Your task to perform on an android device: Is it going to rain tomorrow? Image 0: 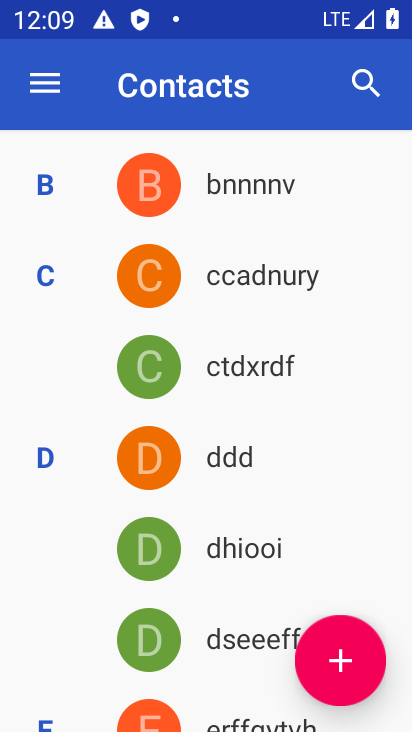
Step 0: press home button
Your task to perform on an android device: Is it going to rain tomorrow? Image 1: 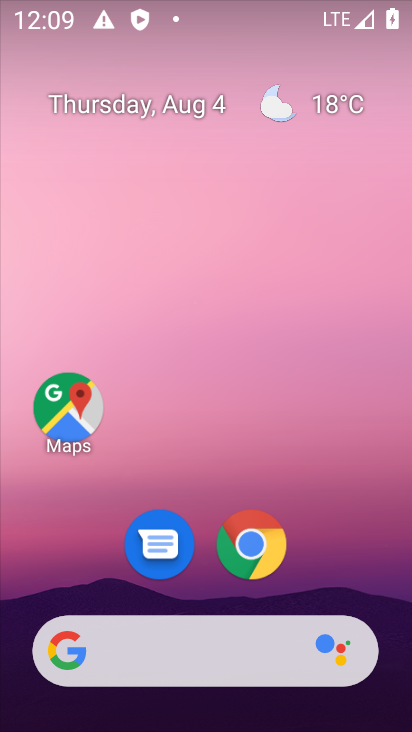
Step 1: click (304, 105)
Your task to perform on an android device: Is it going to rain tomorrow? Image 2: 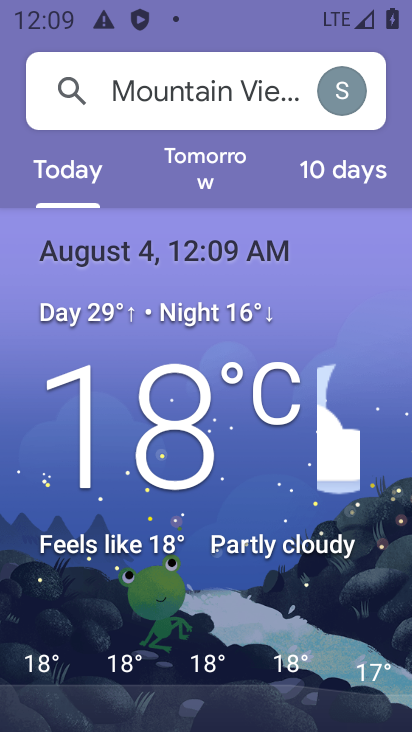
Step 2: click (196, 159)
Your task to perform on an android device: Is it going to rain tomorrow? Image 3: 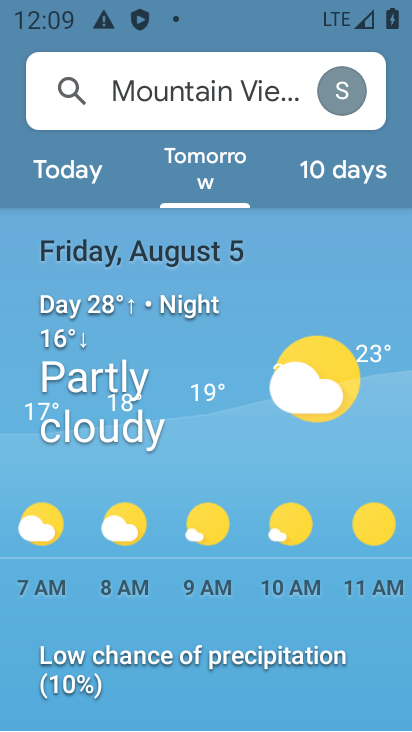
Step 3: task complete